Your task to perform on an android device: toggle translation in the chrome app Image 0: 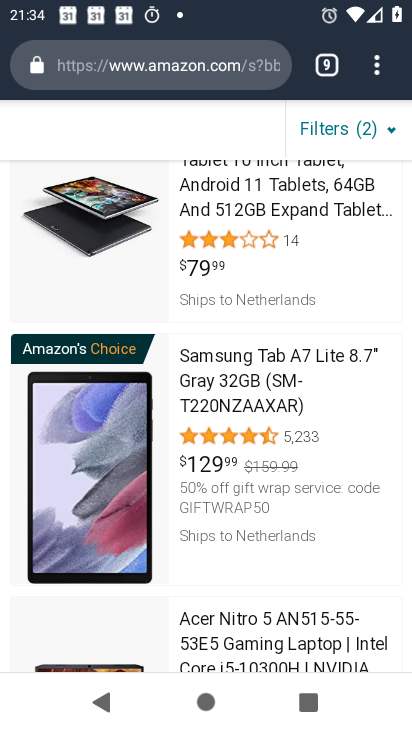
Step 0: press home button
Your task to perform on an android device: toggle translation in the chrome app Image 1: 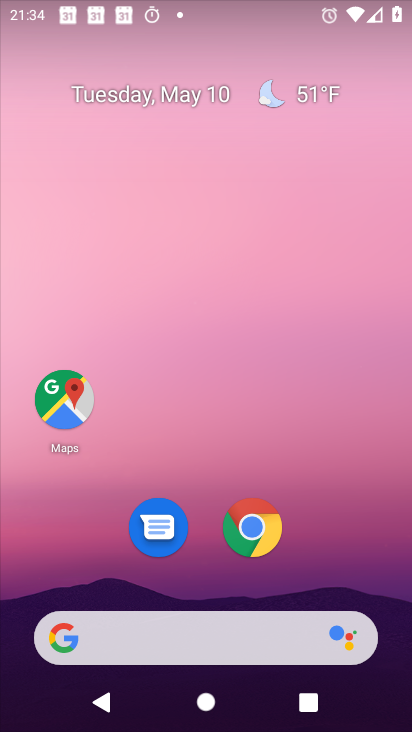
Step 1: drag from (225, 586) to (231, 3)
Your task to perform on an android device: toggle translation in the chrome app Image 2: 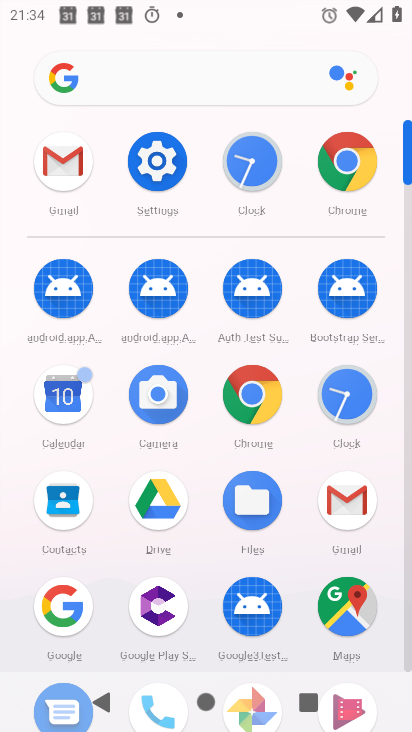
Step 2: click (244, 413)
Your task to perform on an android device: toggle translation in the chrome app Image 3: 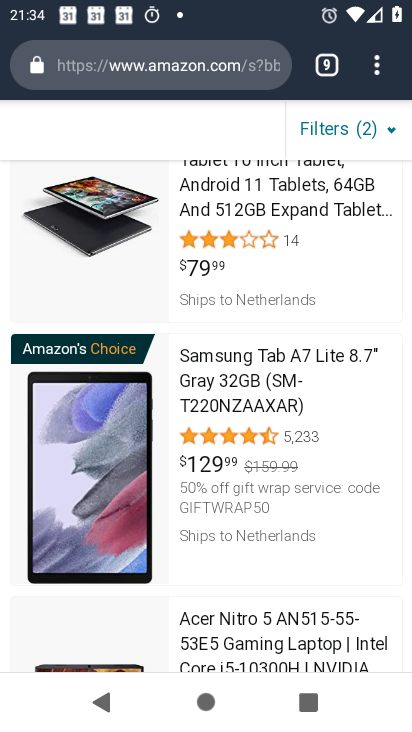
Step 3: click (369, 66)
Your task to perform on an android device: toggle translation in the chrome app Image 4: 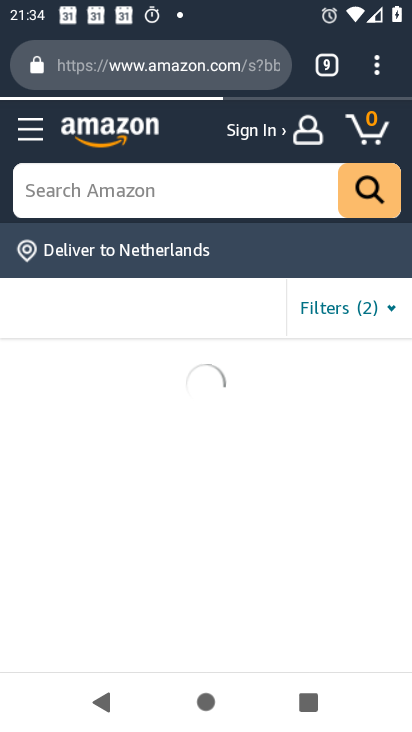
Step 4: click (379, 63)
Your task to perform on an android device: toggle translation in the chrome app Image 5: 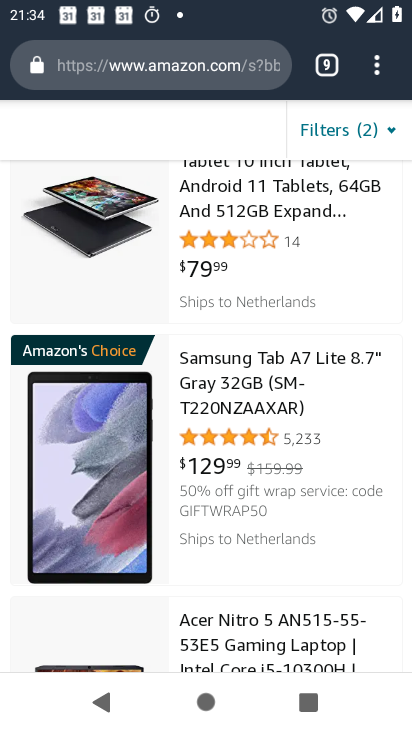
Step 5: drag from (368, 71) to (145, 570)
Your task to perform on an android device: toggle translation in the chrome app Image 6: 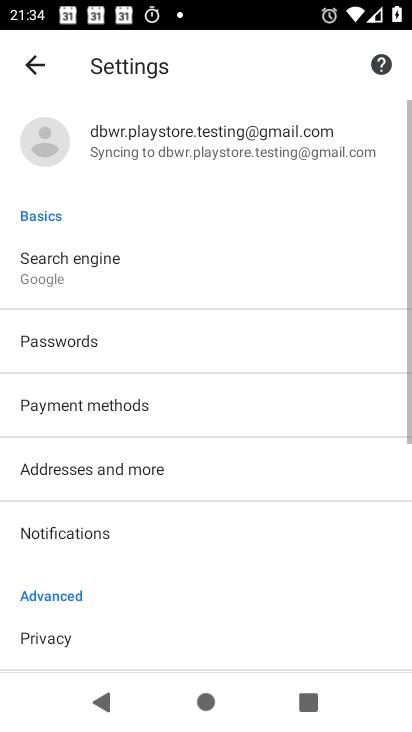
Step 6: drag from (154, 558) to (89, 92)
Your task to perform on an android device: toggle translation in the chrome app Image 7: 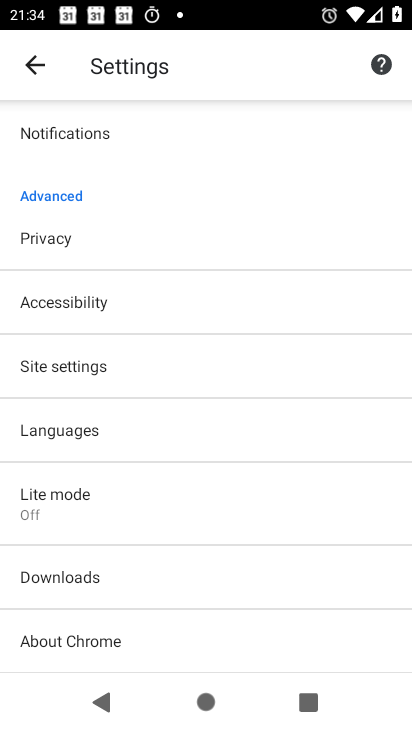
Step 7: click (89, 443)
Your task to perform on an android device: toggle translation in the chrome app Image 8: 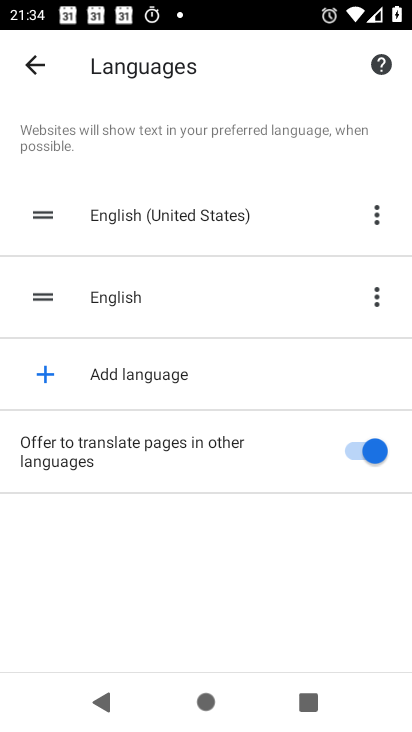
Step 8: click (383, 445)
Your task to perform on an android device: toggle translation in the chrome app Image 9: 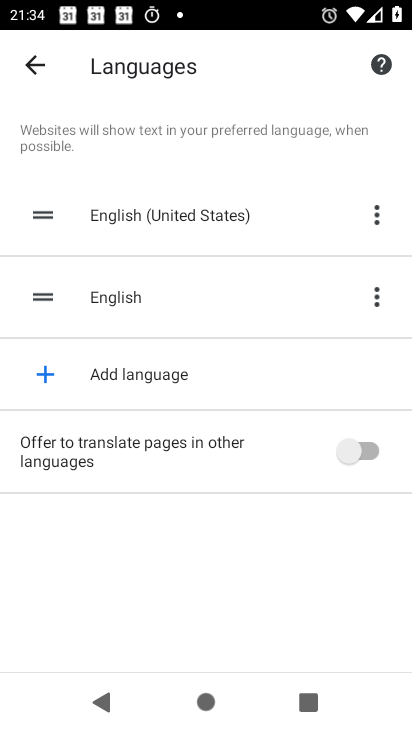
Step 9: task complete